Your task to perform on an android device: turn off javascript in the chrome app Image 0: 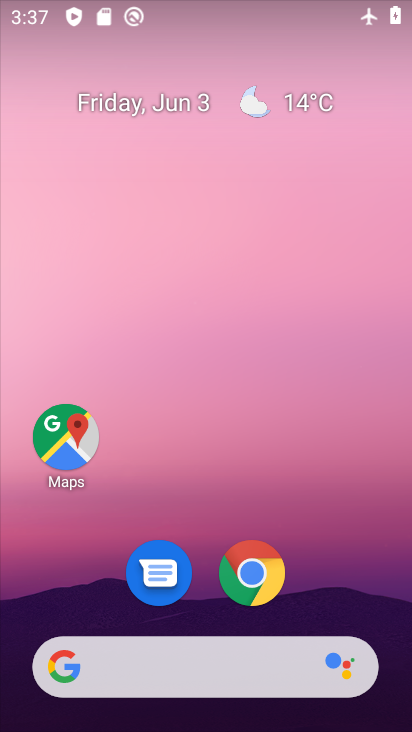
Step 0: drag from (276, 619) to (283, 550)
Your task to perform on an android device: turn off javascript in the chrome app Image 1: 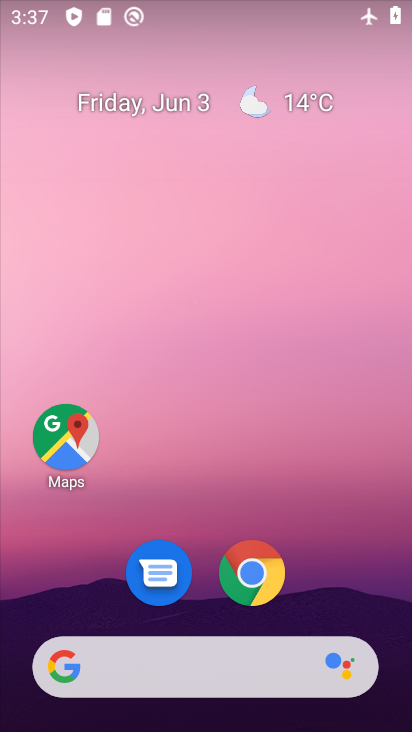
Step 1: drag from (239, 678) to (237, 432)
Your task to perform on an android device: turn off javascript in the chrome app Image 2: 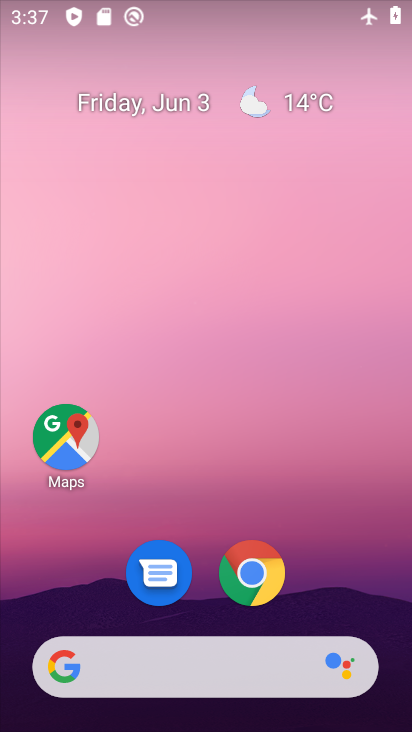
Step 2: click (265, 589)
Your task to perform on an android device: turn off javascript in the chrome app Image 3: 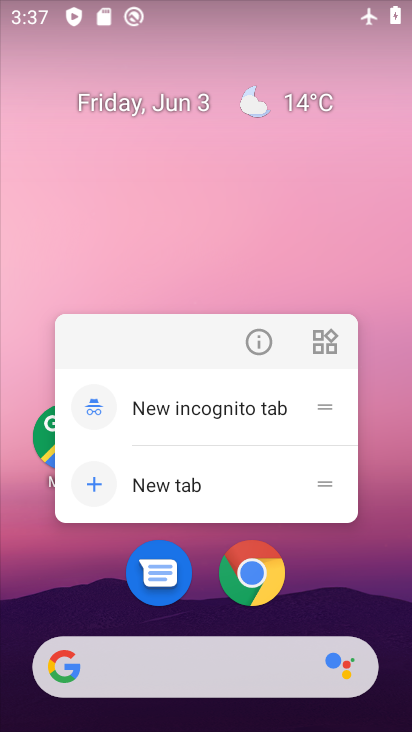
Step 3: click (263, 594)
Your task to perform on an android device: turn off javascript in the chrome app Image 4: 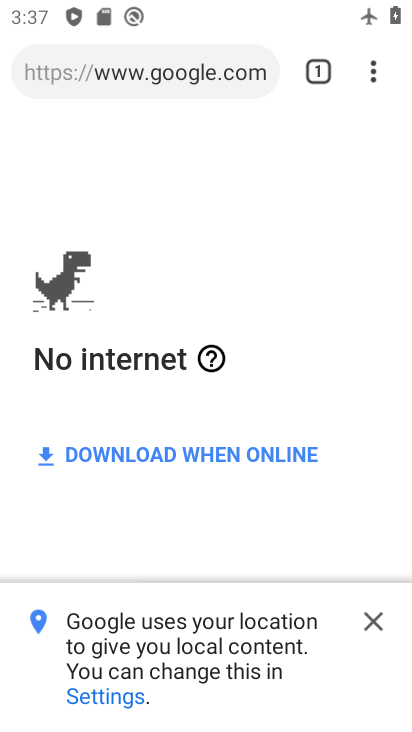
Step 4: click (381, 78)
Your task to perform on an android device: turn off javascript in the chrome app Image 5: 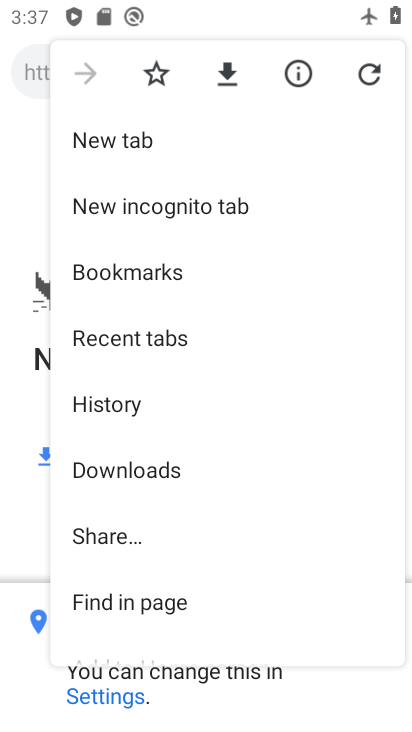
Step 5: drag from (157, 575) to (132, 402)
Your task to perform on an android device: turn off javascript in the chrome app Image 6: 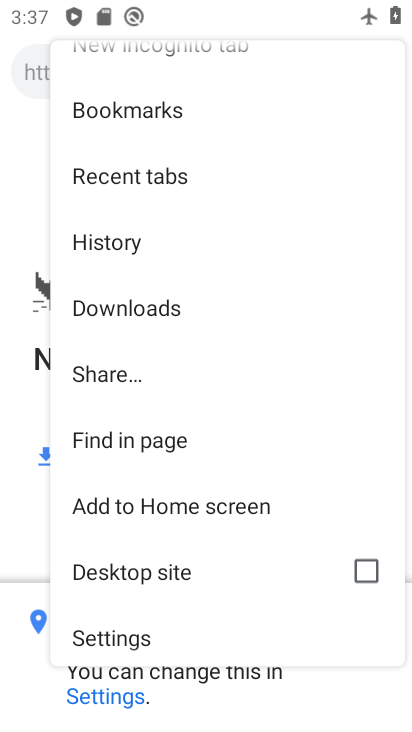
Step 6: click (152, 631)
Your task to perform on an android device: turn off javascript in the chrome app Image 7: 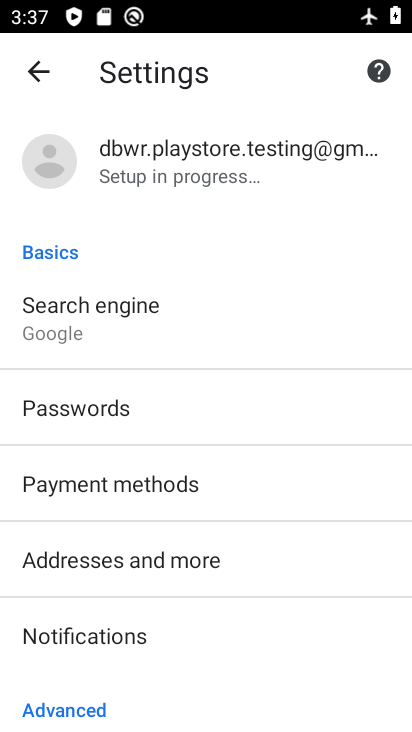
Step 7: drag from (80, 650) to (130, 315)
Your task to perform on an android device: turn off javascript in the chrome app Image 8: 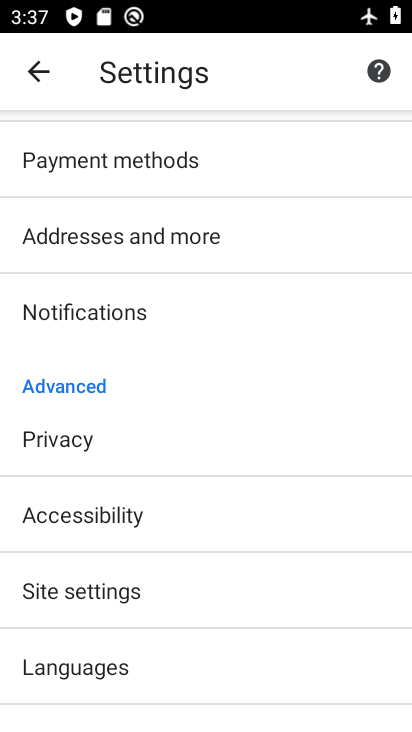
Step 8: click (78, 576)
Your task to perform on an android device: turn off javascript in the chrome app Image 9: 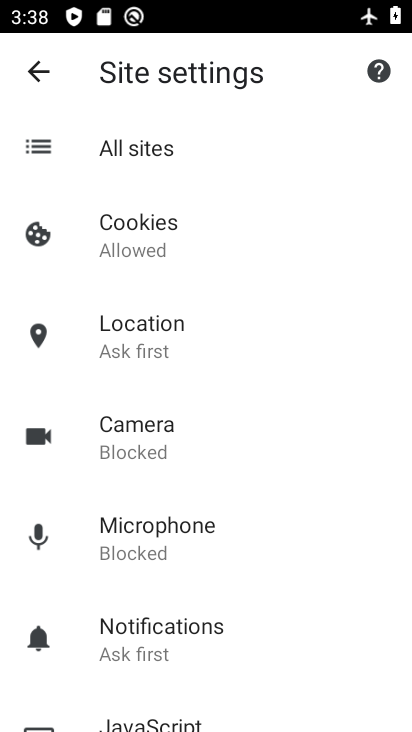
Step 9: drag from (210, 531) to (217, 421)
Your task to perform on an android device: turn off javascript in the chrome app Image 10: 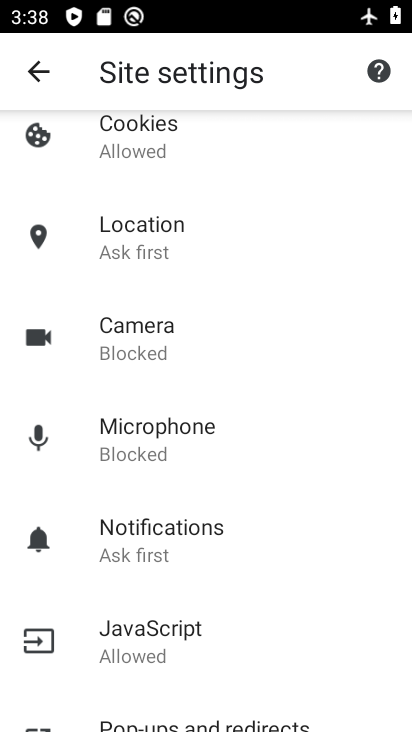
Step 10: click (208, 639)
Your task to perform on an android device: turn off javascript in the chrome app Image 11: 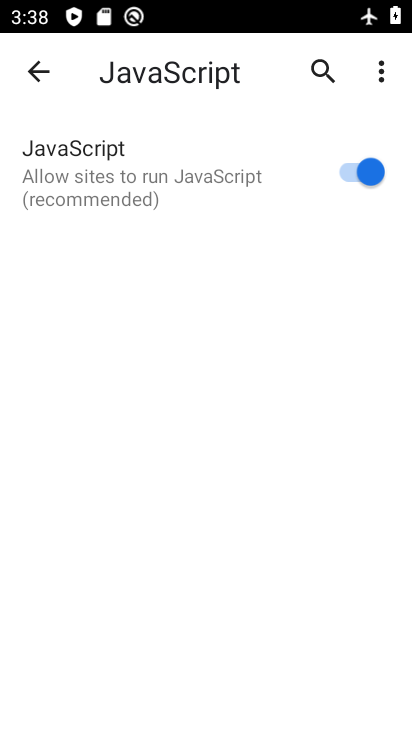
Step 11: click (352, 177)
Your task to perform on an android device: turn off javascript in the chrome app Image 12: 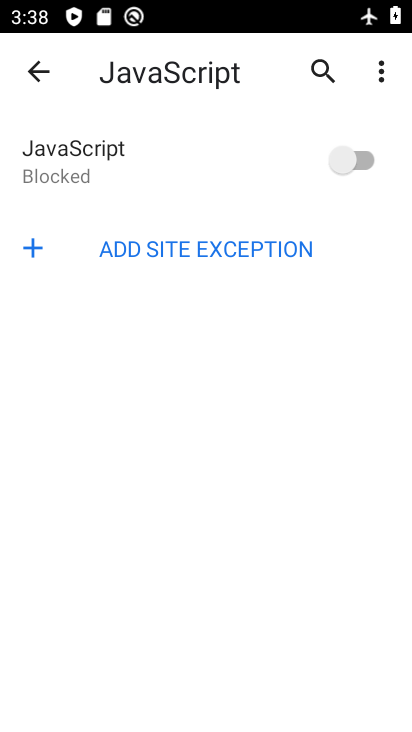
Step 12: task complete